Your task to perform on an android device: Check the weather Image 0: 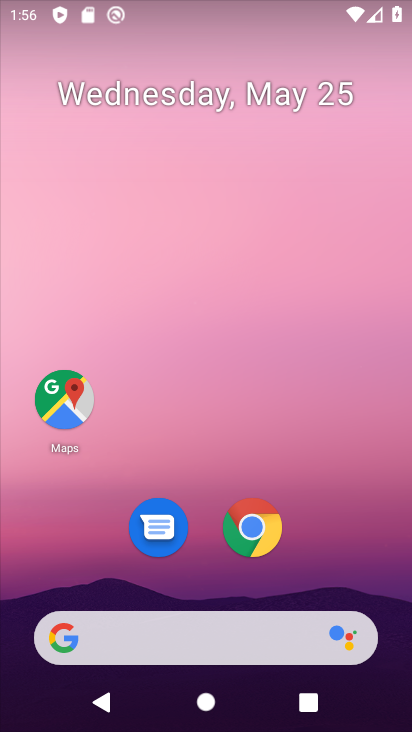
Step 0: click (313, 92)
Your task to perform on an android device: Check the weather Image 1: 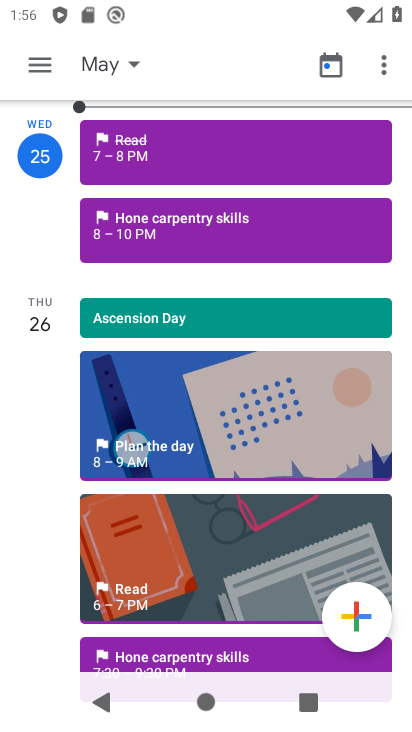
Step 1: press home button
Your task to perform on an android device: Check the weather Image 2: 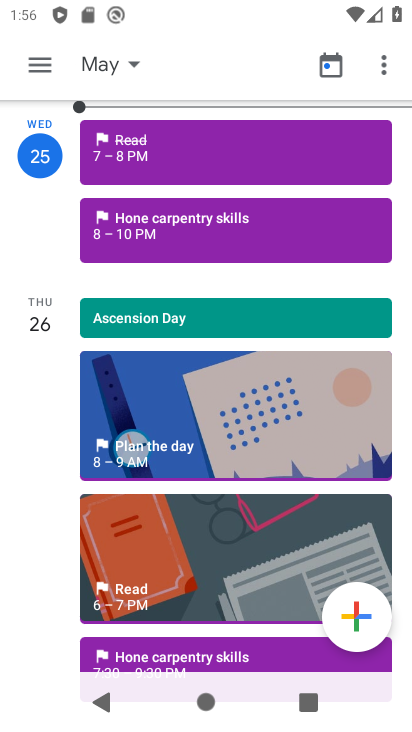
Step 2: drag from (251, 326) to (400, 307)
Your task to perform on an android device: Check the weather Image 3: 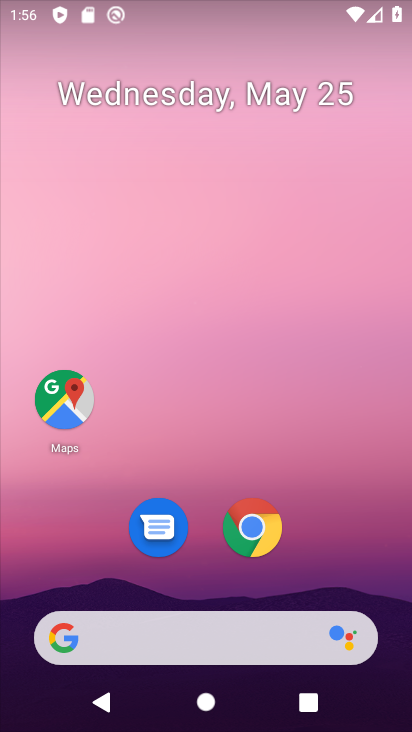
Step 3: drag from (210, 590) to (358, 65)
Your task to perform on an android device: Check the weather Image 4: 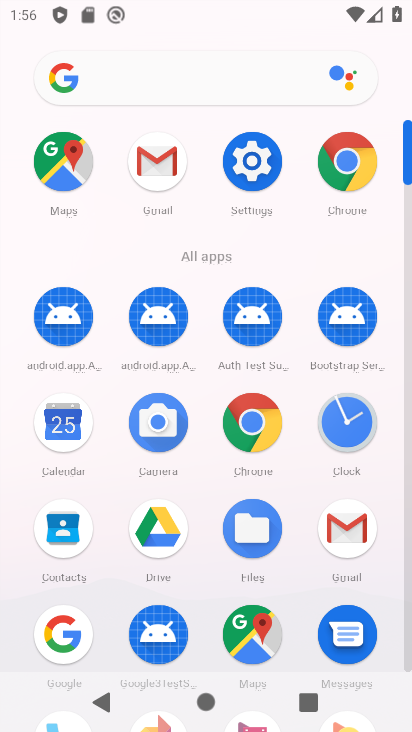
Step 4: click (156, 77)
Your task to perform on an android device: Check the weather Image 5: 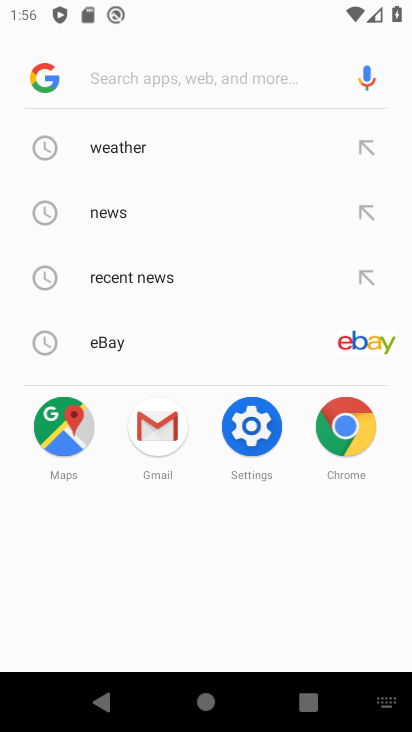
Step 5: click (145, 157)
Your task to perform on an android device: Check the weather Image 6: 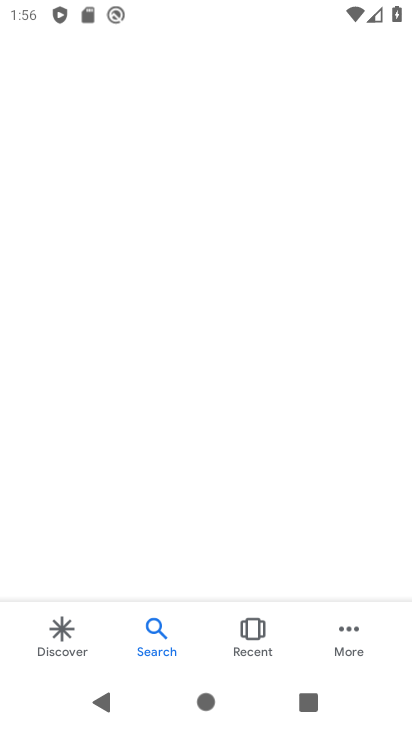
Step 6: task complete